Your task to perform on an android device: delete browsing data in the chrome app Image 0: 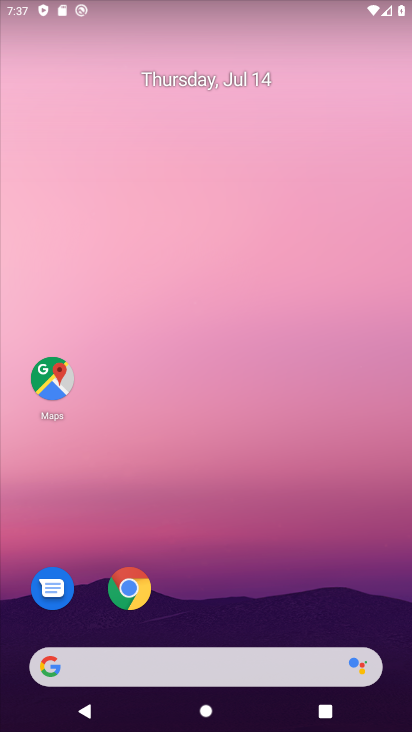
Step 0: drag from (37, 718) to (257, 66)
Your task to perform on an android device: delete browsing data in the chrome app Image 1: 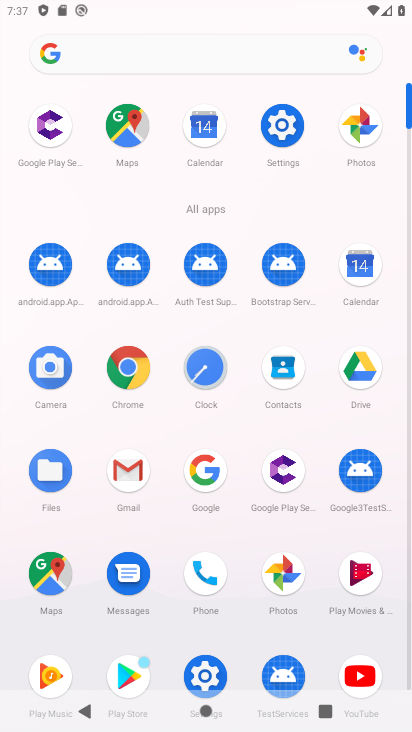
Step 1: click (115, 358)
Your task to perform on an android device: delete browsing data in the chrome app Image 2: 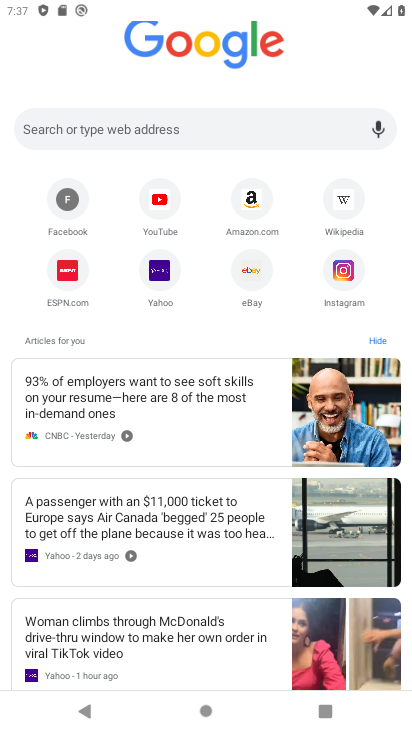
Step 2: press home button
Your task to perform on an android device: delete browsing data in the chrome app Image 3: 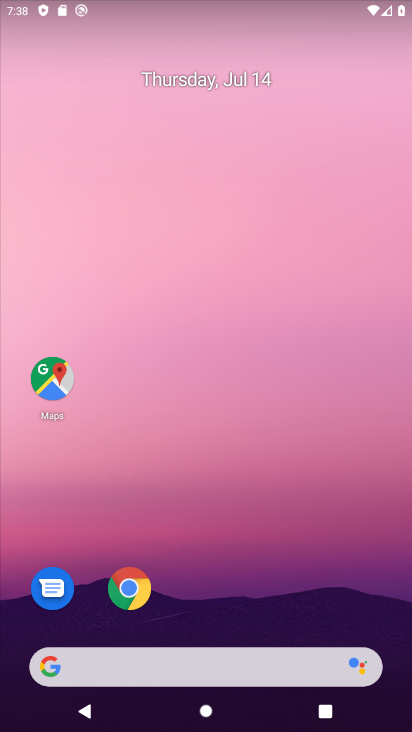
Step 3: click (136, 585)
Your task to perform on an android device: delete browsing data in the chrome app Image 4: 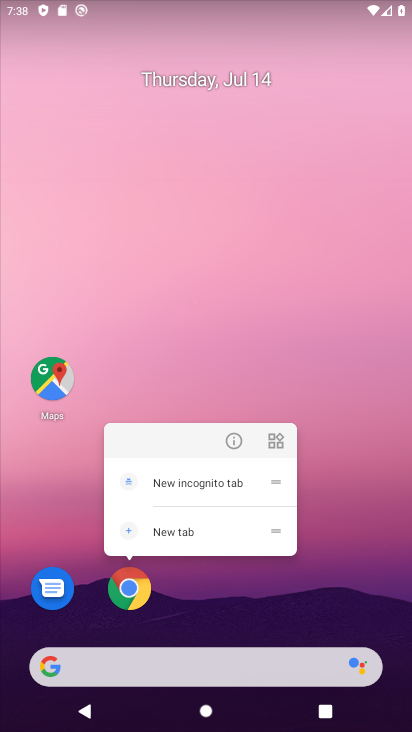
Step 4: click (110, 604)
Your task to perform on an android device: delete browsing data in the chrome app Image 5: 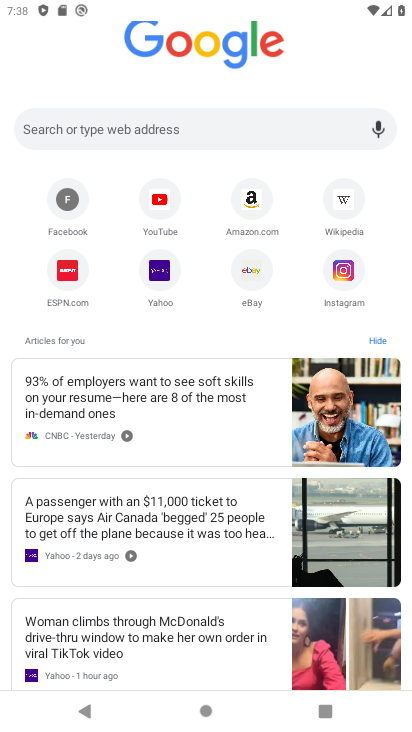
Step 5: task complete